Your task to perform on an android device: Do I have any events today? Image 0: 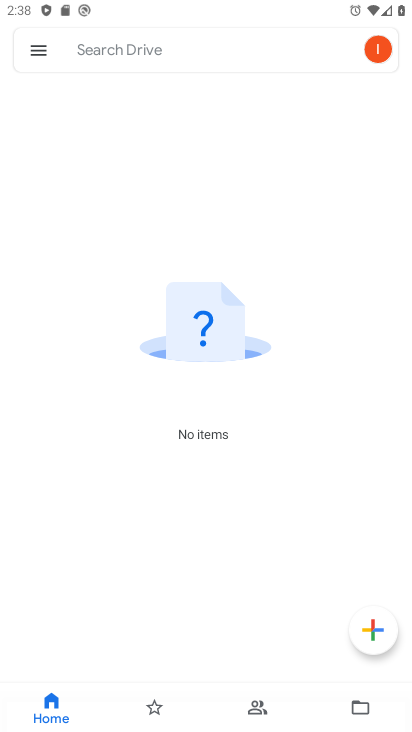
Step 0: press home button
Your task to perform on an android device: Do I have any events today? Image 1: 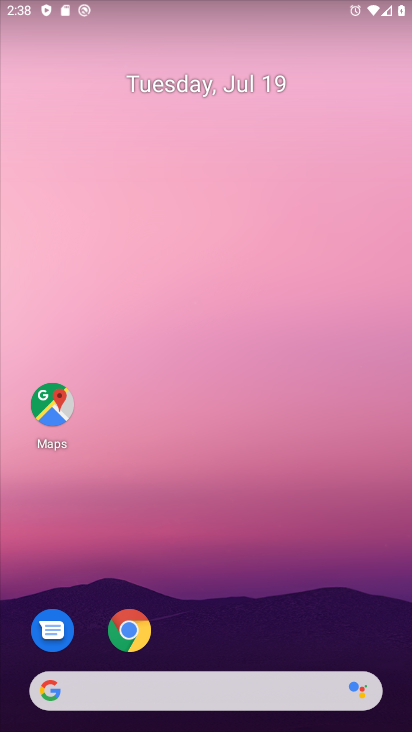
Step 1: drag from (263, 536) to (287, 55)
Your task to perform on an android device: Do I have any events today? Image 2: 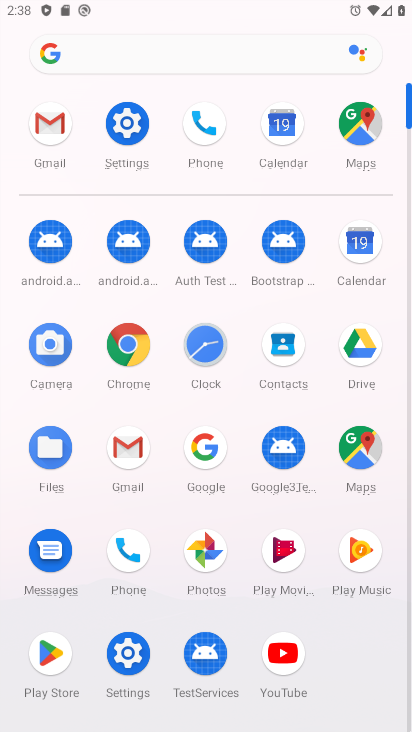
Step 2: click (275, 114)
Your task to perform on an android device: Do I have any events today? Image 3: 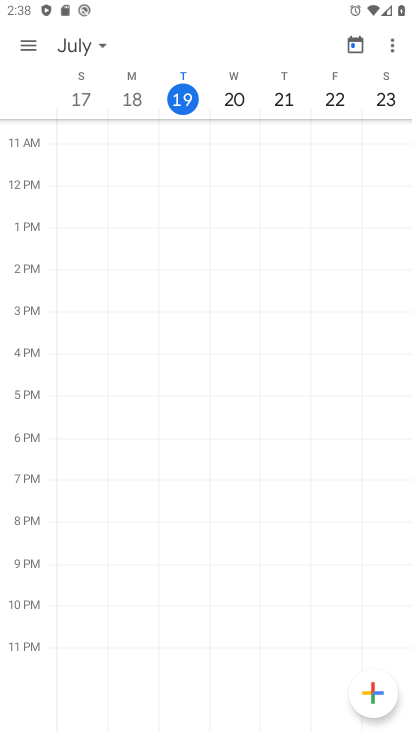
Step 3: task complete